Your task to perform on an android device: Go to display settings Image 0: 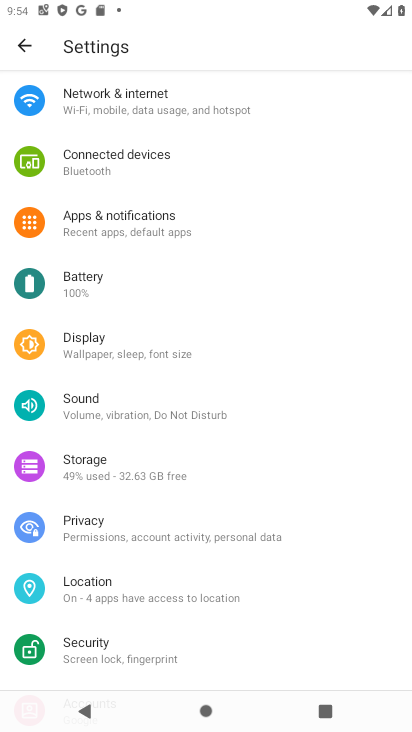
Step 0: click (109, 344)
Your task to perform on an android device: Go to display settings Image 1: 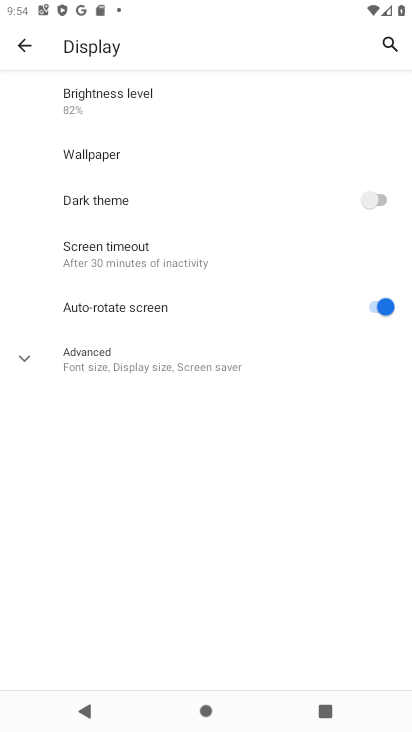
Step 1: task complete